Your task to perform on an android device: open the mobile data screen to see how much data has been used Image 0: 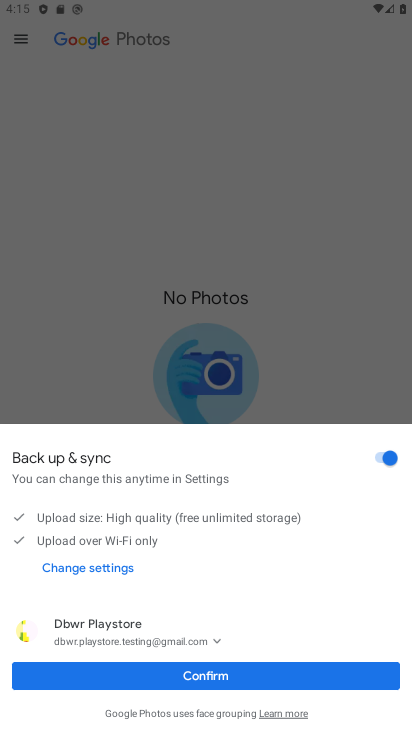
Step 0: press back button
Your task to perform on an android device: open the mobile data screen to see how much data has been used Image 1: 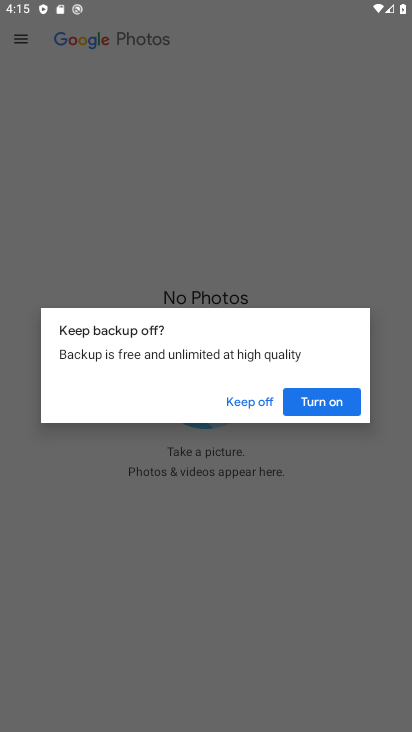
Step 1: press back button
Your task to perform on an android device: open the mobile data screen to see how much data has been used Image 2: 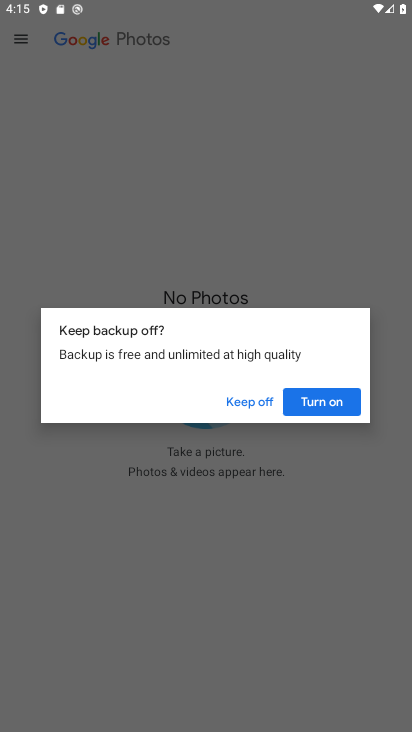
Step 2: press home button
Your task to perform on an android device: open the mobile data screen to see how much data has been used Image 3: 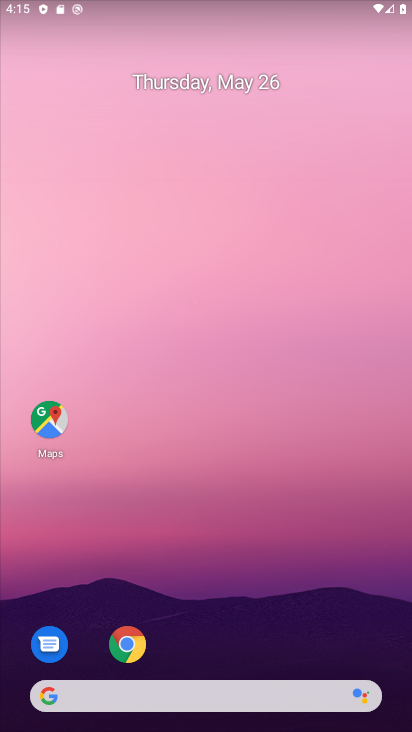
Step 3: drag from (284, 490) to (271, 33)
Your task to perform on an android device: open the mobile data screen to see how much data has been used Image 4: 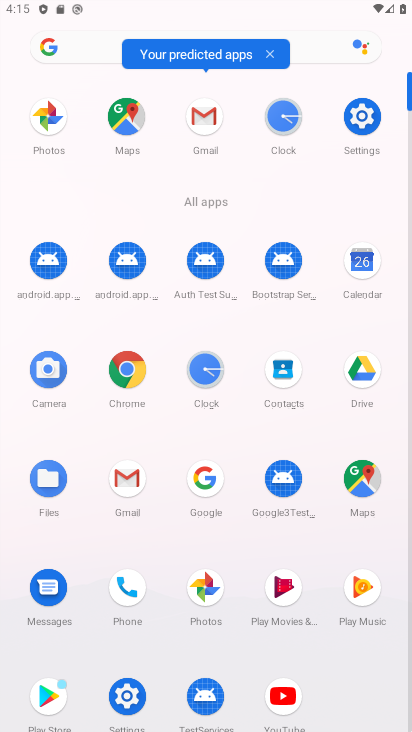
Step 4: drag from (12, 555) to (16, 277)
Your task to perform on an android device: open the mobile data screen to see how much data has been used Image 5: 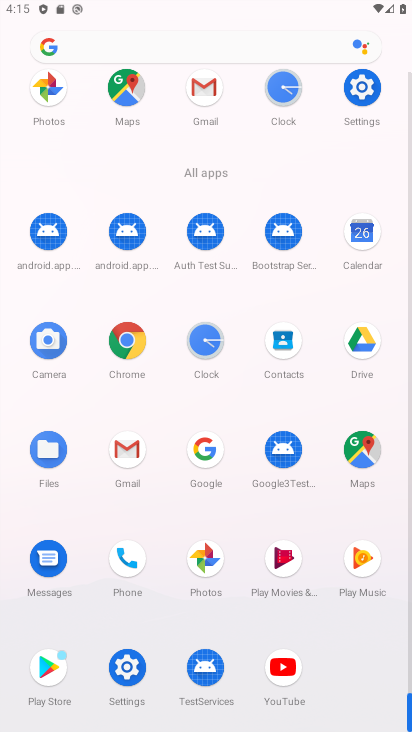
Step 5: click (126, 665)
Your task to perform on an android device: open the mobile data screen to see how much data has been used Image 6: 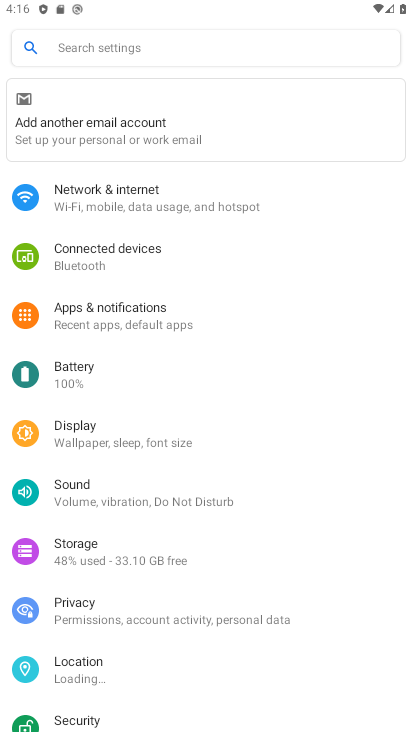
Step 6: click (153, 195)
Your task to perform on an android device: open the mobile data screen to see how much data has been used Image 7: 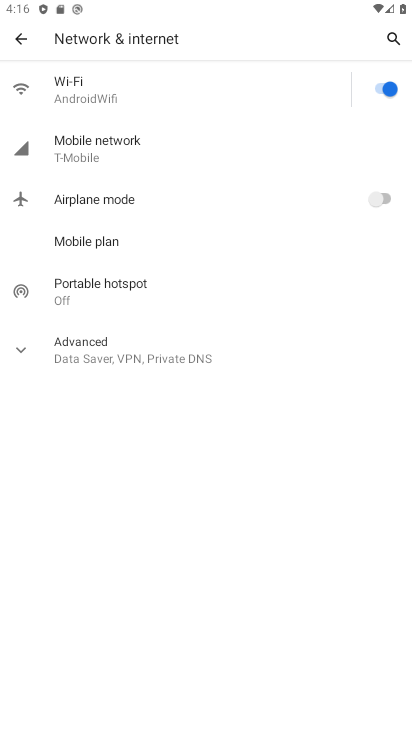
Step 7: click (148, 148)
Your task to perform on an android device: open the mobile data screen to see how much data has been used Image 8: 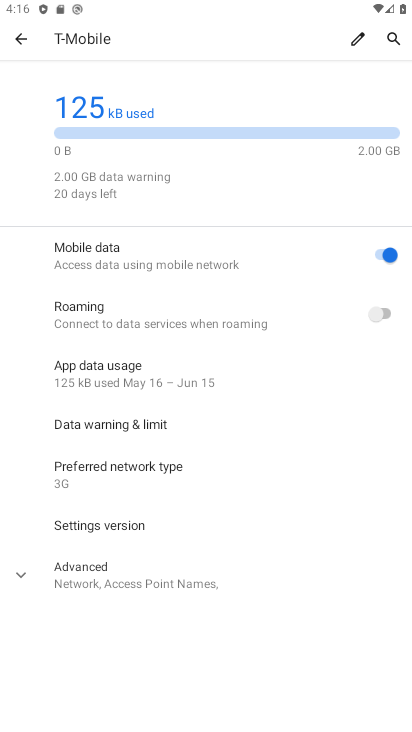
Step 8: click (15, 572)
Your task to perform on an android device: open the mobile data screen to see how much data has been used Image 9: 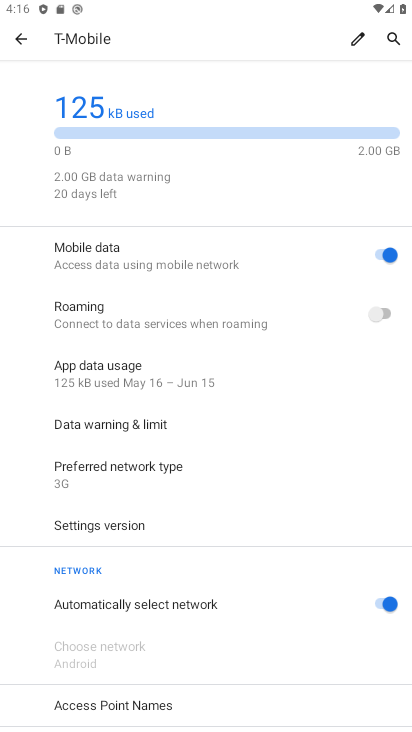
Step 9: task complete